Your task to perform on an android device: visit the assistant section in the google photos Image 0: 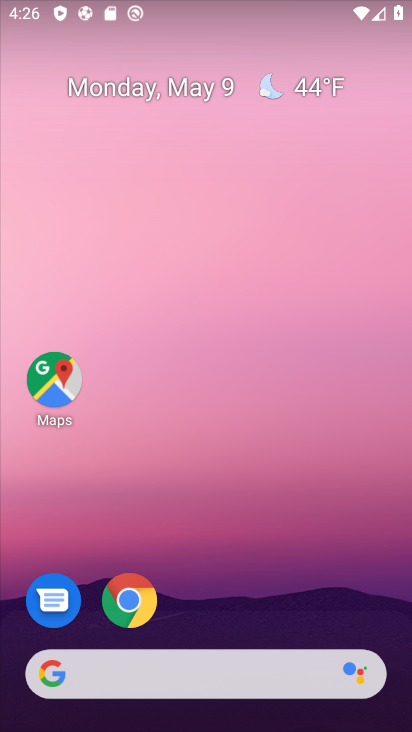
Step 0: drag from (250, 554) to (269, 15)
Your task to perform on an android device: visit the assistant section in the google photos Image 1: 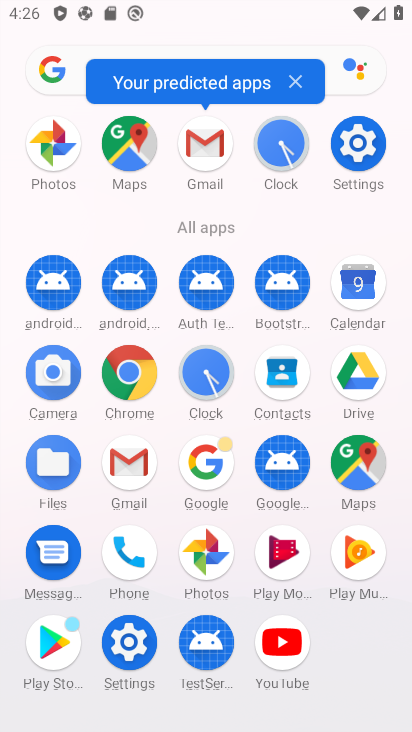
Step 1: click (209, 553)
Your task to perform on an android device: visit the assistant section in the google photos Image 2: 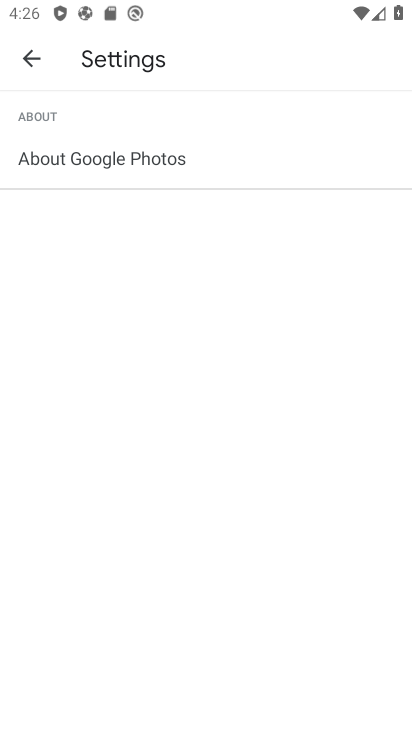
Step 2: click (33, 60)
Your task to perform on an android device: visit the assistant section in the google photos Image 3: 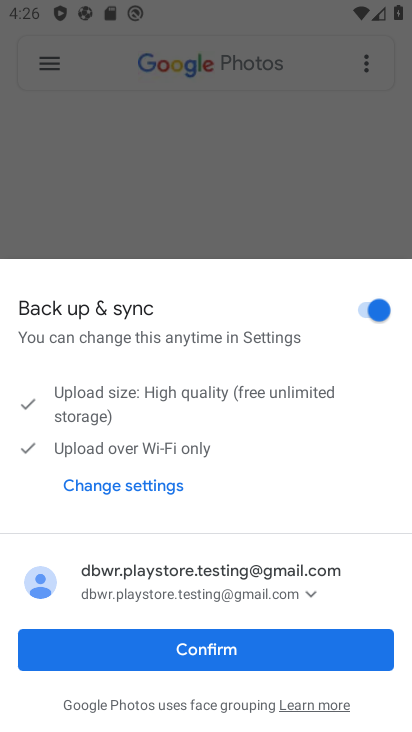
Step 3: click (259, 683)
Your task to perform on an android device: visit the assistant section in the google photos Image 4: 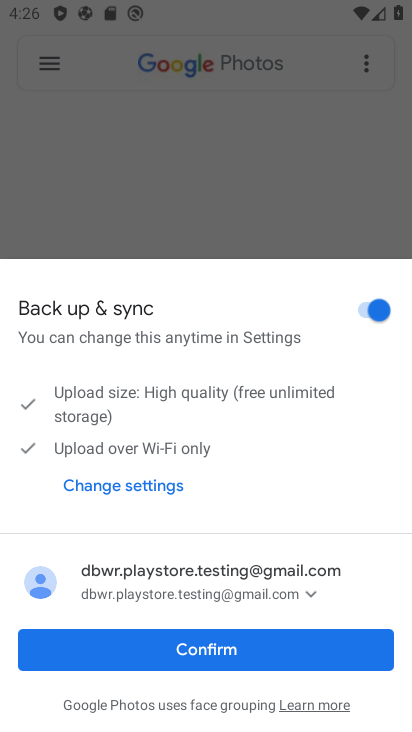
Step 4: click (267, 655)
Your task to perform on an android device: visit the assistant section in the google photos Image 5: 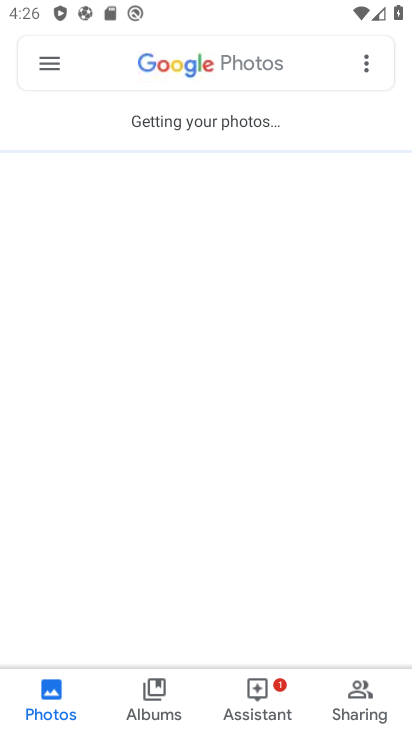
Step 5: click (265, 698)
Your task to perform on an android device: visit the assistant section in the google photos Image 6: 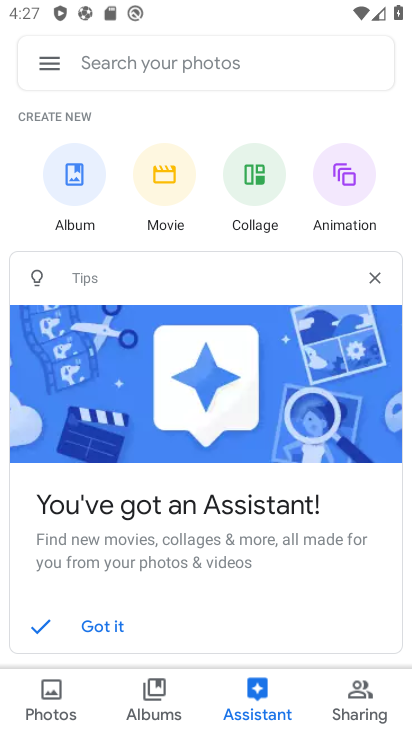
Step 6: task complete